Your task to perform on an android device: Go to Maps Image 0: 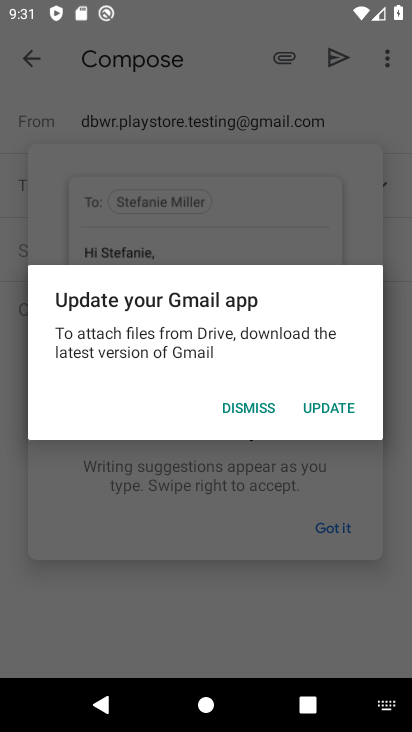
Step 0: press home button
Your task to perform on an android device: Go to Maps Image 1: 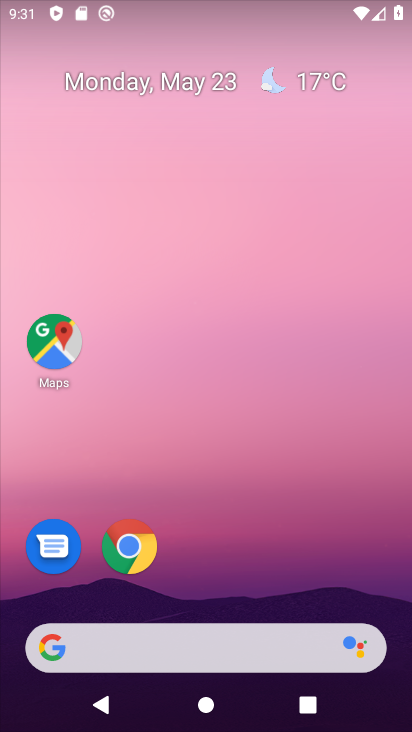
Step 1: click (51, 336)
Your task to perform on an android device: Go to Maps Image 2: 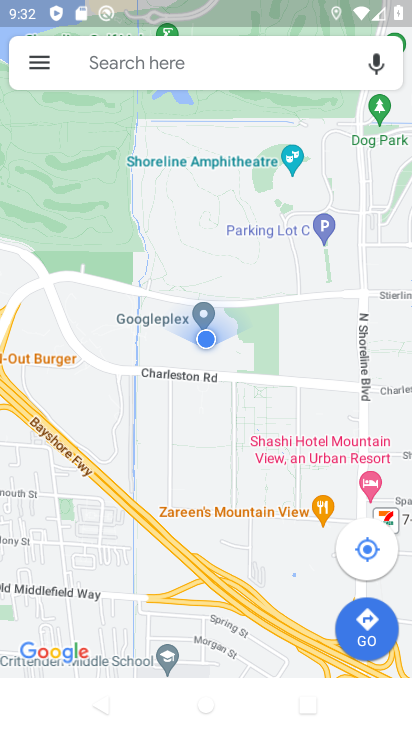
Step 2: task complete